Your task to perform on an android device: Open ESPN.com Image 0: 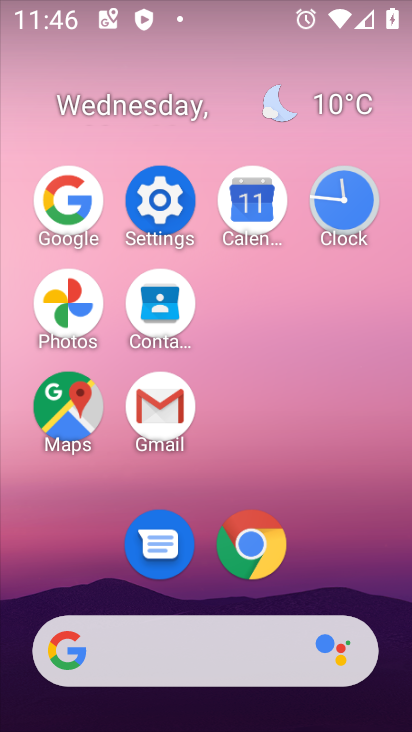
Step 0: click (244, 582)
Your task to perform on an android device: Open ESPN.com Image 1: 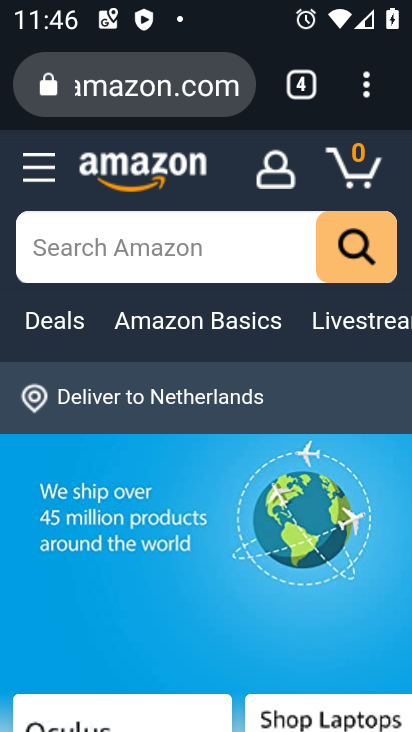
Step 1: click (310, 86)
Your task to perform on an android device: Open ESPN.com Image 2: 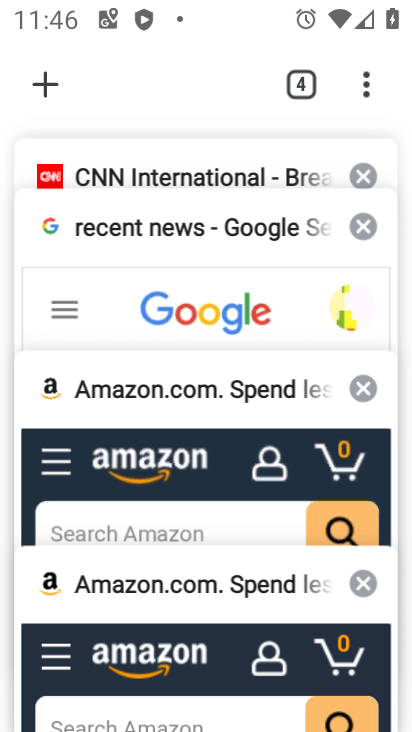
Step 2: click (37, 87)
Your task to perform on an android device: Open ESPN.com Image 3: 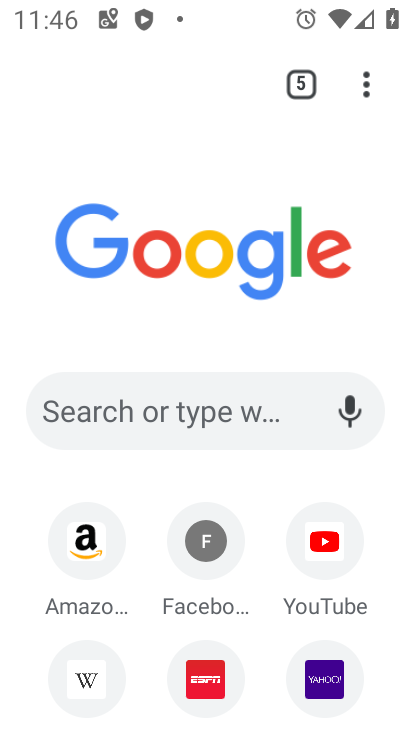
Step 3: click (226, 659)
Your task to perform on an android device: Open ESPN.com Image 4: 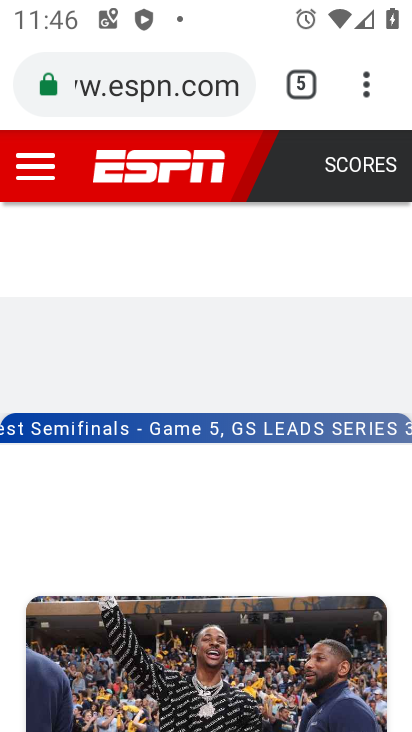
Step 4: task complete